Your task to perform on an android device: What's the weather? Image 0: 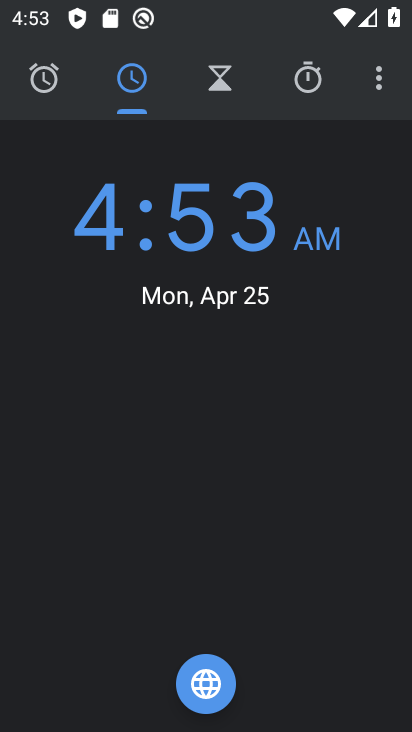
Step 0: press back button
Your task to perform on an android device: What's the weather? Image 1: 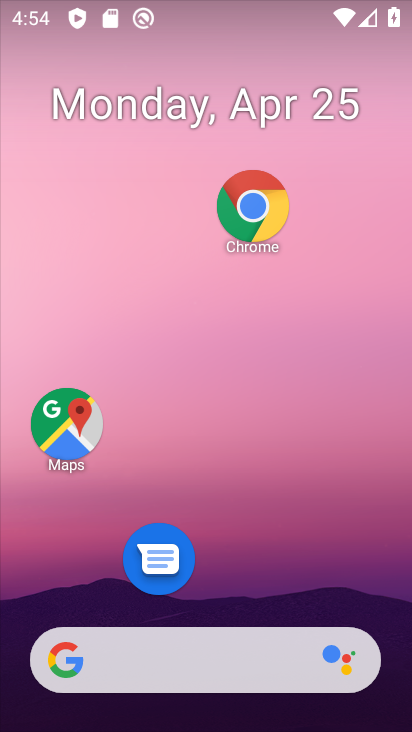
Step 1: drag from (252, 525) to (163, 102)
Your task to perform on an android device: What's the weather? Image 2: 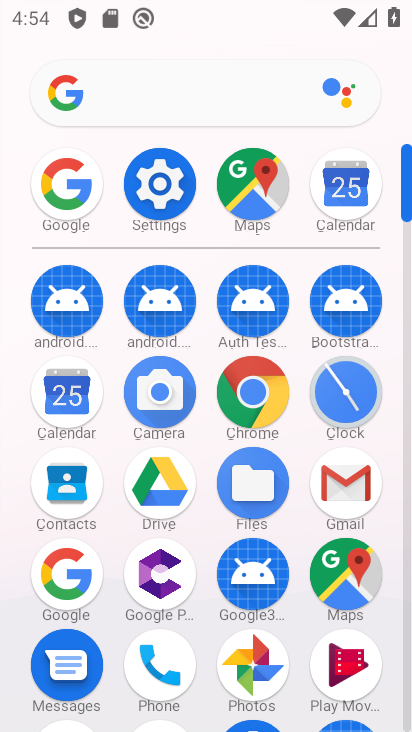
Step 2: click (60, 184)
Your task to perform on an android device: What's the weather? Image 3: 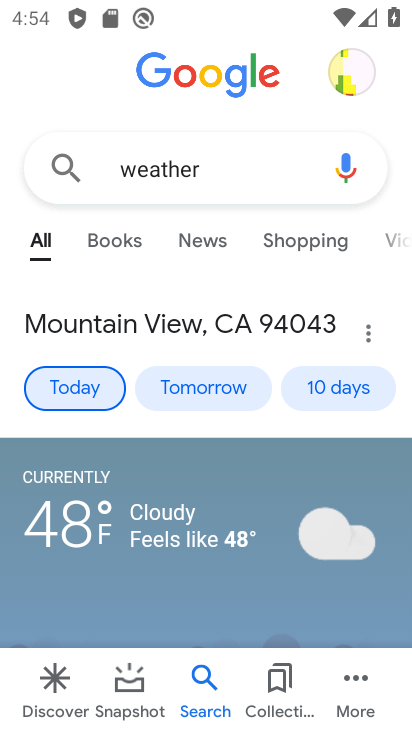
Step 3: task complete